Your task to perform on an android device: add a contact Image 0: 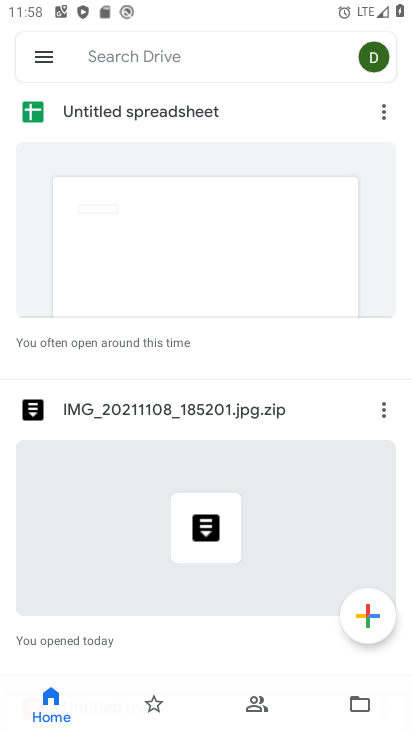
Step 0: press home button
Your task to perform on an android device: add a contact Image 1: 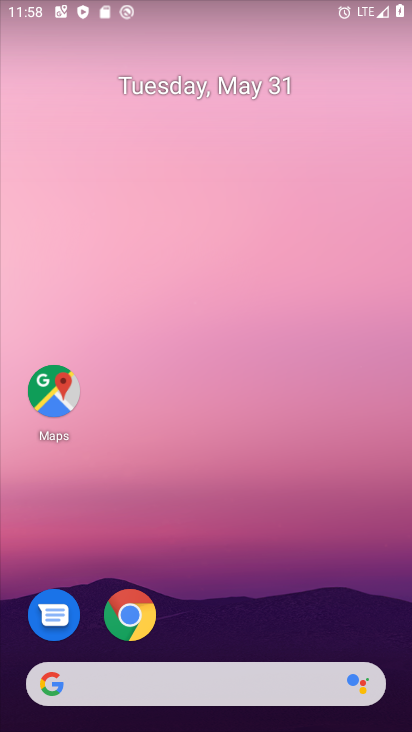
Step 1: drag from (222, 597) to (152, 18)
Your task to perform on an android device: add a contact Image 2: 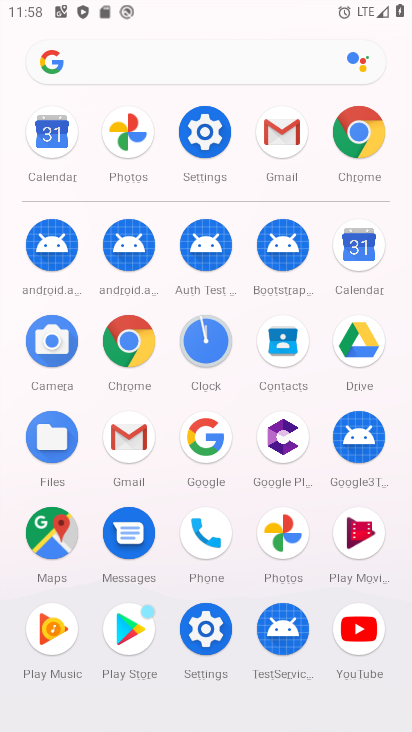
Step 2: click (190, 530)
Your task to perform on an android device: add a contact Image 3: 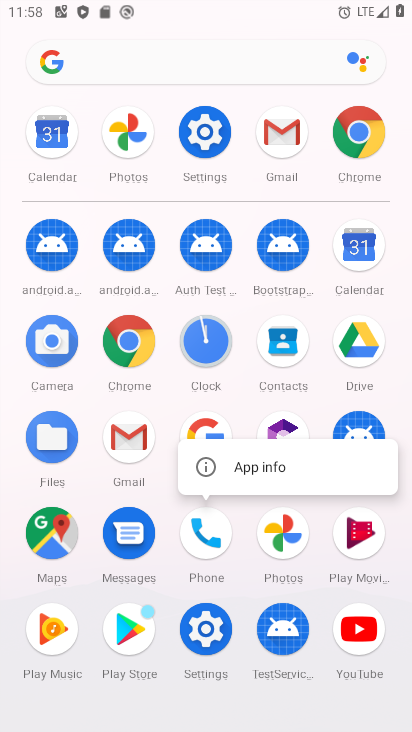
Step 3: click (214, 543)
Your task to perform on an android device: add a contact Image 4: 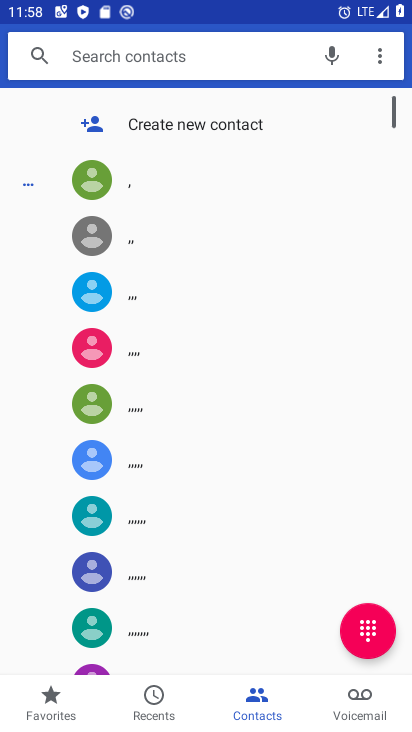
Step 4: click (160, 127)
Your task to perform on an android device: add a contact Image 5: 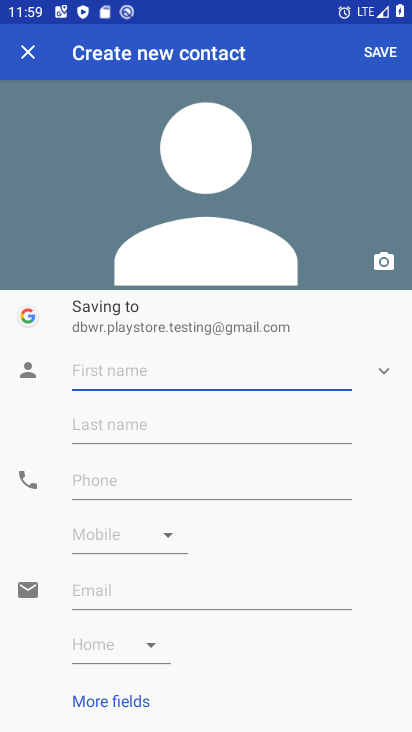
Step 5: type "rtt"
Your task to perform on an android device: add a contact Image 6: 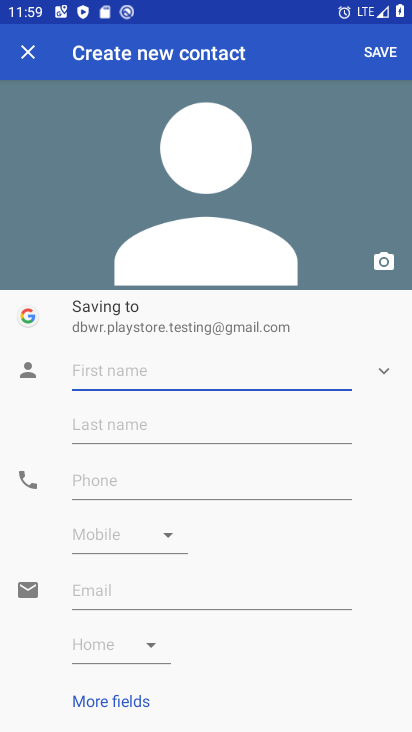
Step 6: click (146, 483)
Your task to perform on an android device: add a contact Image 7: 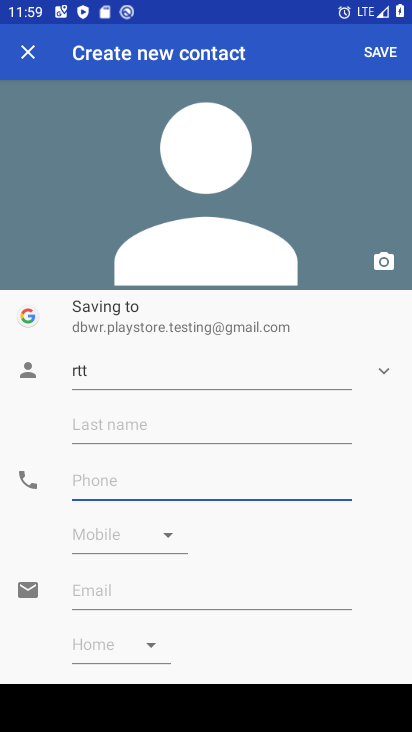
Step 7: type "677766"
Your task to perform on an android device: add a contact Image 8: 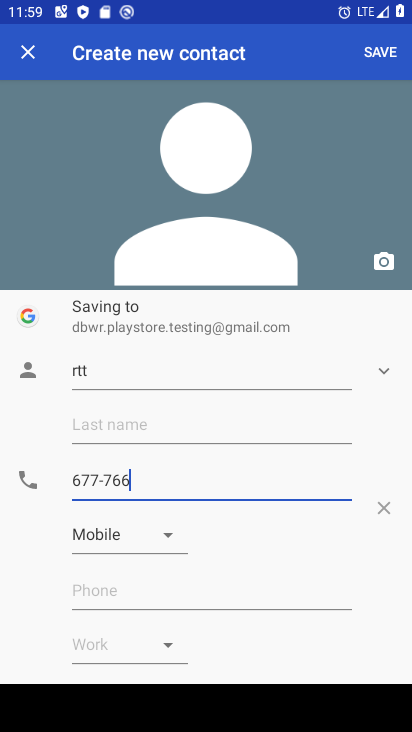
Step 8: click (390, 57)
Your task to perform on an android device: add a contact Image 9: 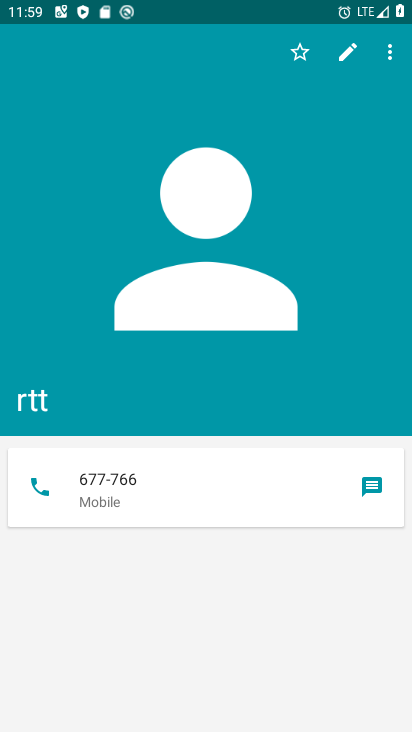
Step 9: task complete